Your task to perform on an android device: search for starred emails in the gmail app Image 0: 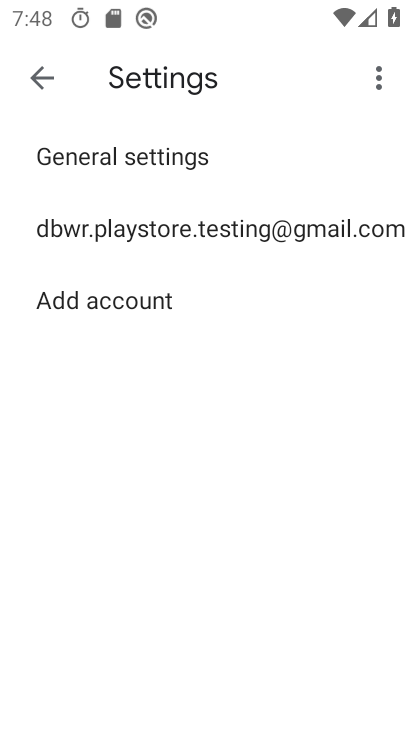
Step 0: press home button
Your task to perform on an android device: search for starred emails in the gmail app Image 1: 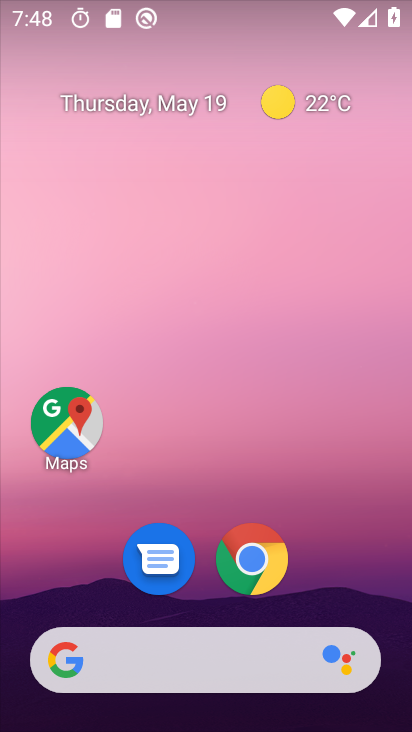
Step 1: drag from (324, 581) to (231, 67)
Your task to perform on an android device: search for starred emails in the gmail app Image 2: 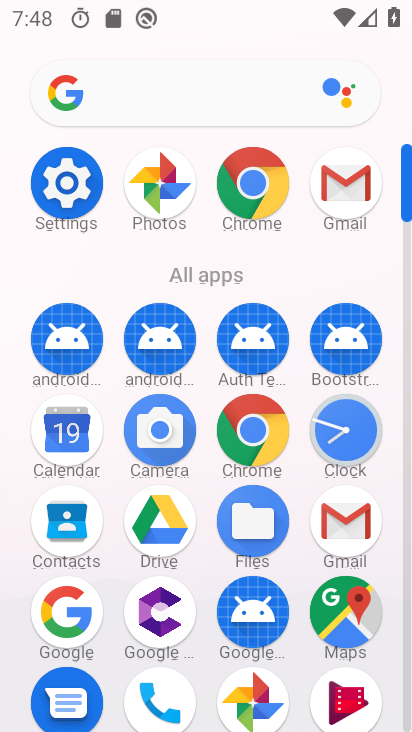
Step 2: click (342, 190)
Your task to perform on an android device: search for starred emails in the gmail app Image 3: 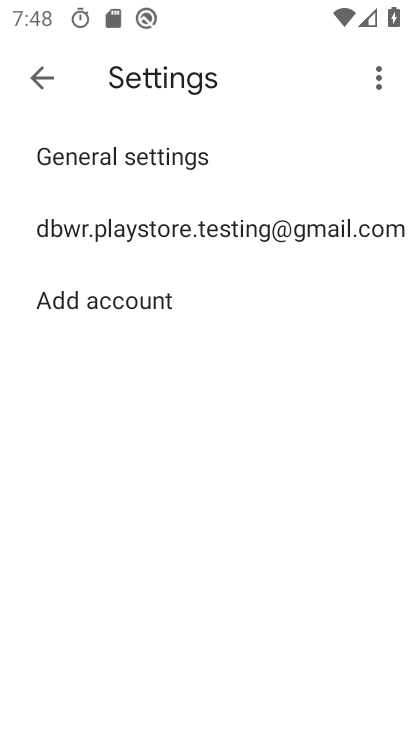
Step 3: click (50, 81)
Your task to perform on an android device: search for starred emails in the gmail app Image 4: 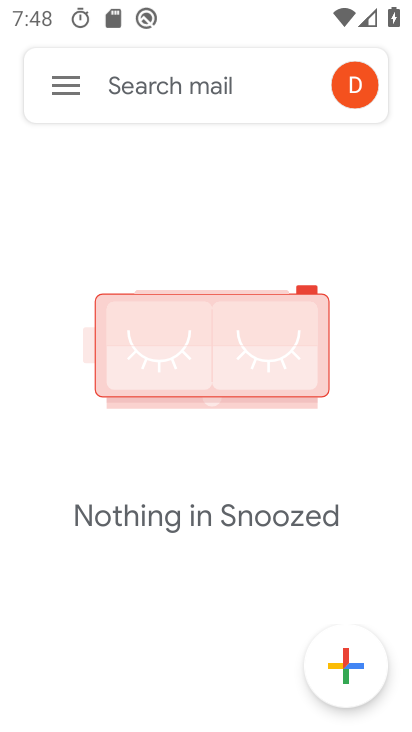
Step 4: click (51, 82)
Your task to perform on an android device: search for starred emails in the gmail app Image 5: 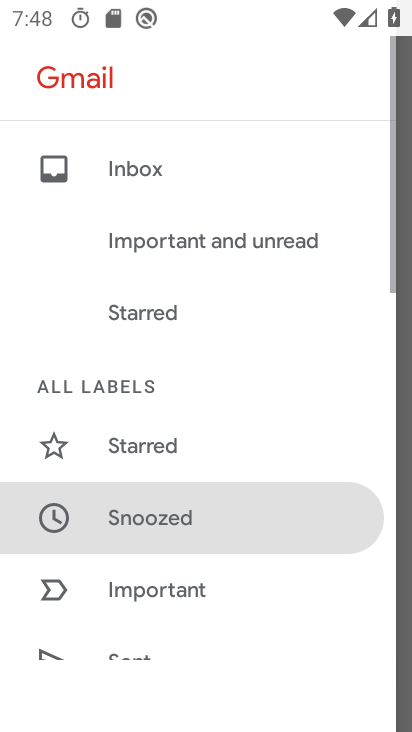
Step 5: click (180, 433)
Your task to perform on an android device: search for starred emails in the gmail app Image 6: 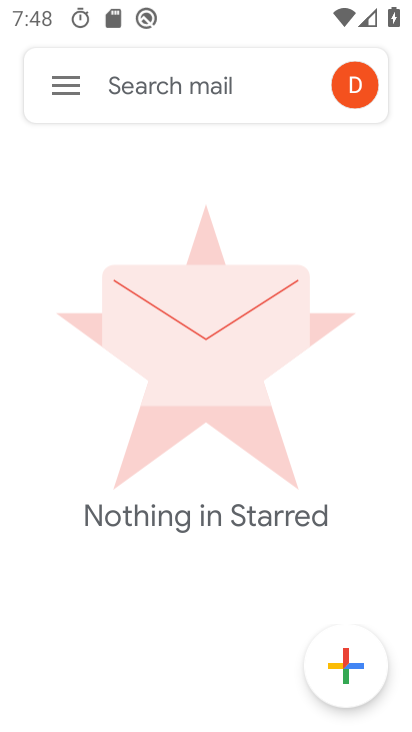
Step 6: task complete